Your task to perform on an android device: turn off wifi Image 0: 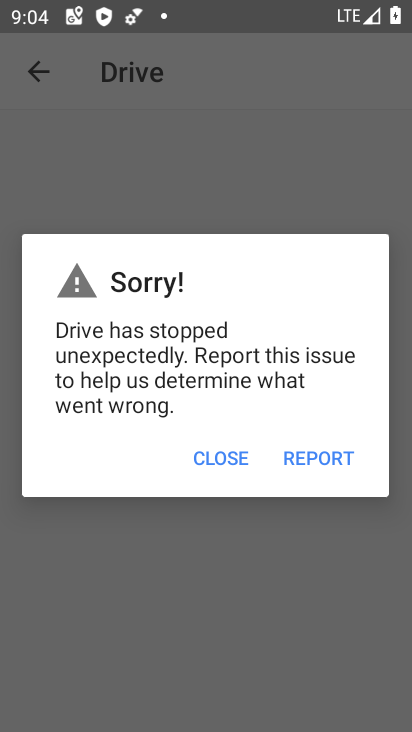
Step 0: press home button
Your task to perform on an android device: turn off wifi Image 1: 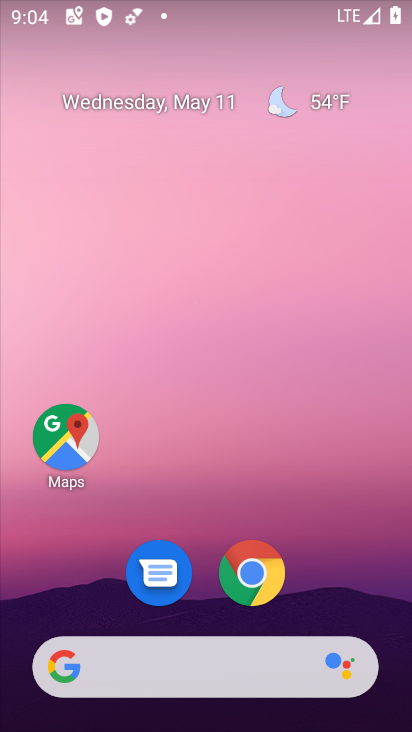
Step 1: drag from (234, 665) to (250, 40)
Your task to perform on an android device: turn off wifi Image 2: 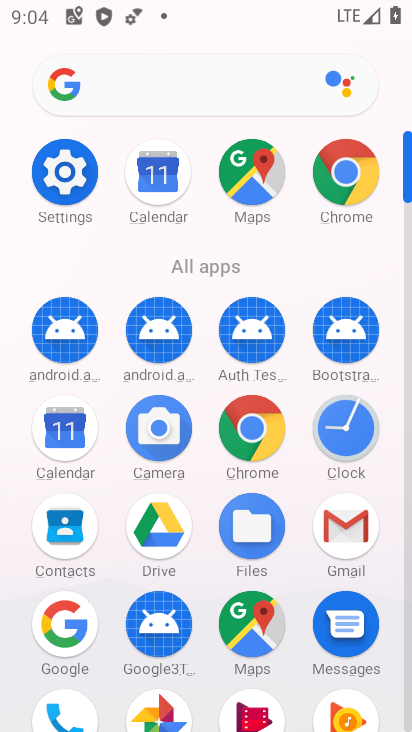
Step 2: click (63, 181)
Your task to perform on an android device: turn off wifi Image 3: 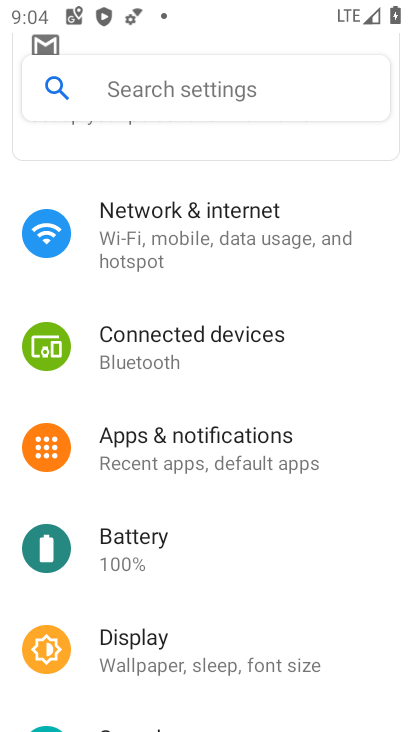
Step 3: click (189, 238)
Your task to perform on an android device: turn off wifi Image 4: 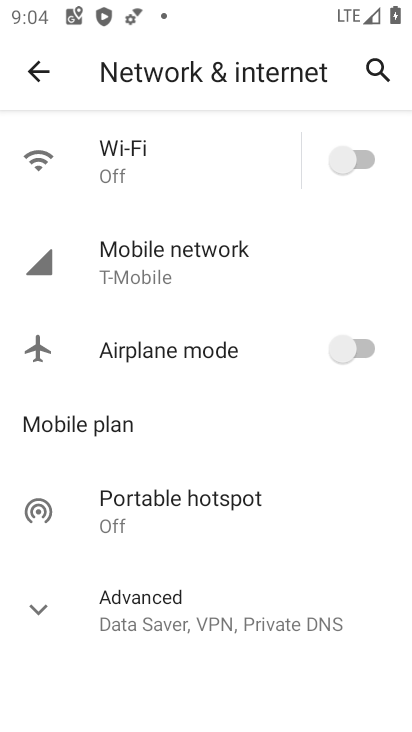
Step 4: task complete